Your task to perform on an android device: Open Reddit.com Image 0: 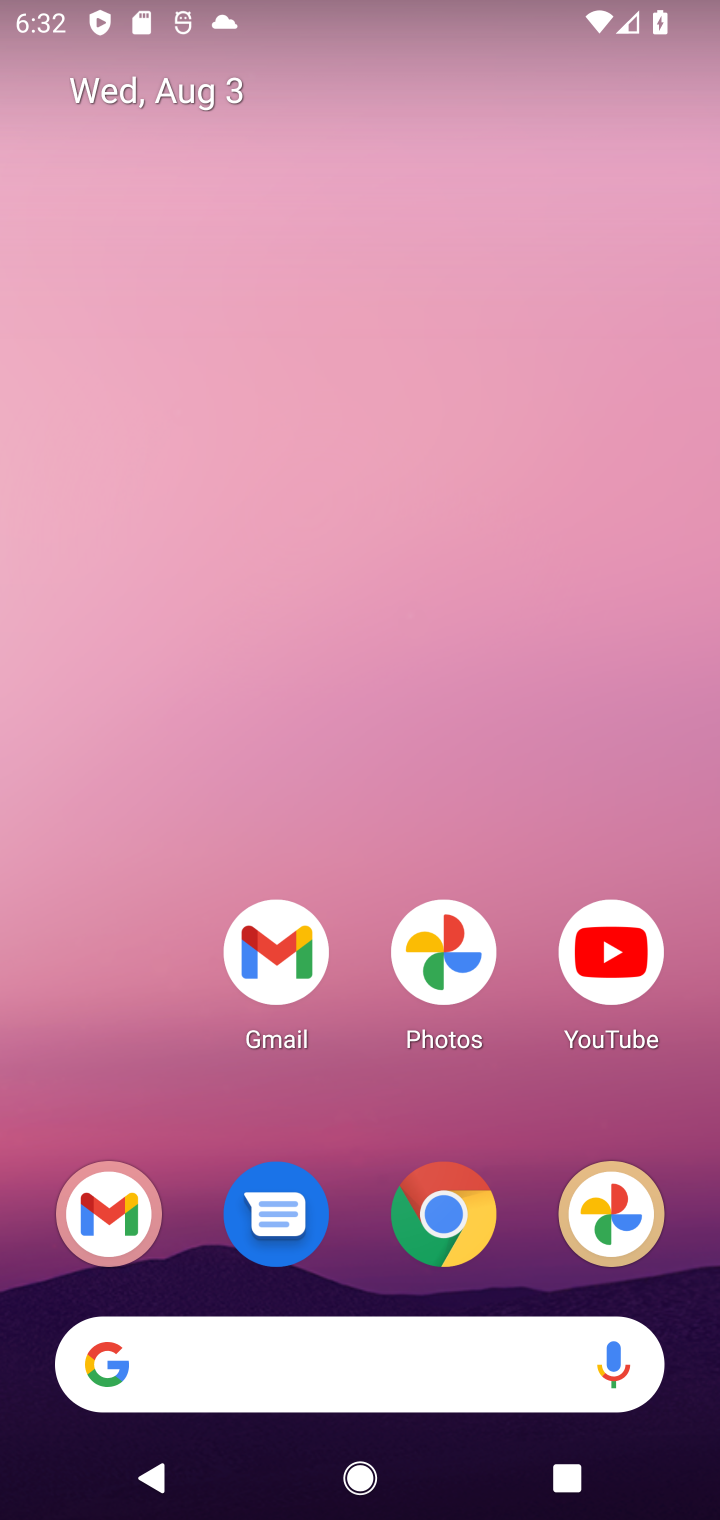
Step 0: drag from (21, 1119) to (23, 28)
Your task to perform on an android device: Open Reddit.com Image 1: 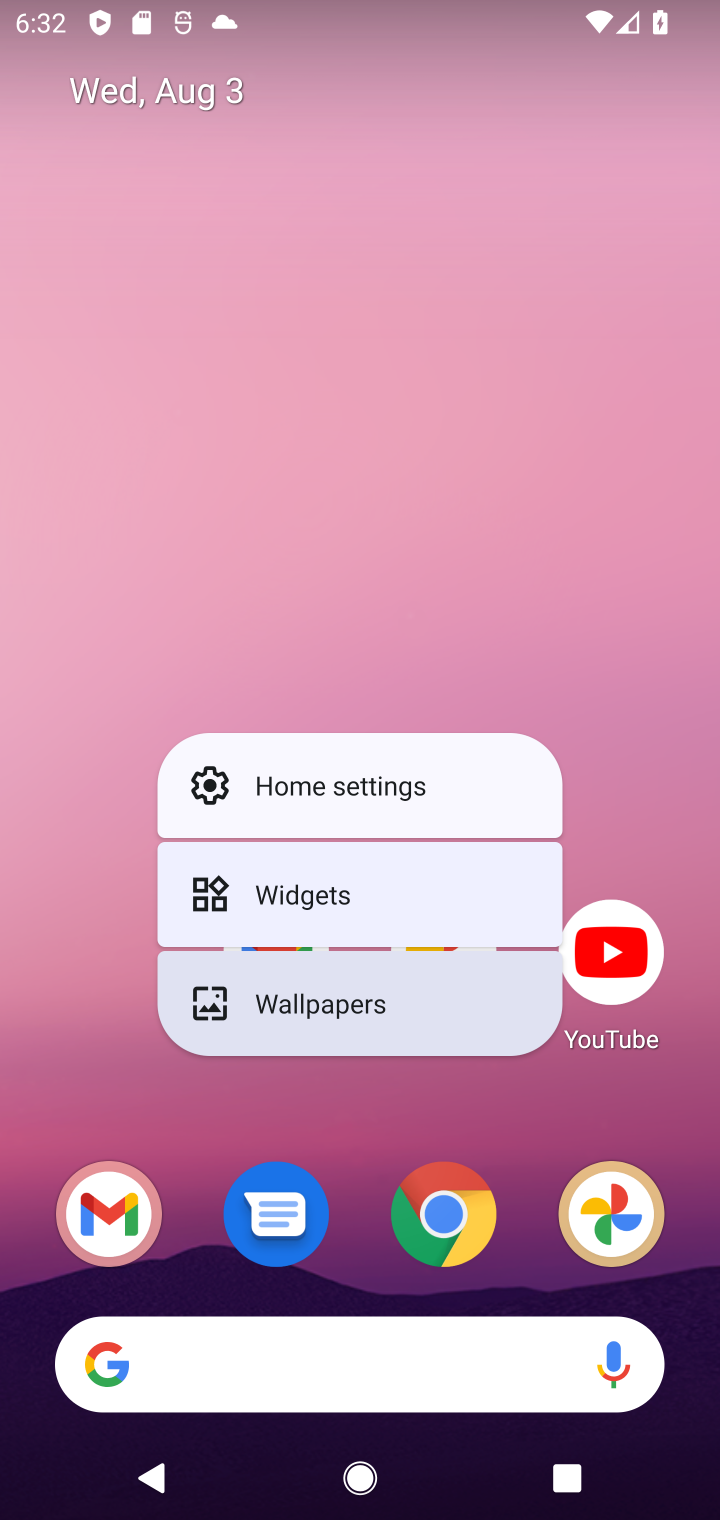
Step 1: drag from (50, 1127) to (138, 147)
Your task to perform on an android device: Open Reddit.com Image 2: 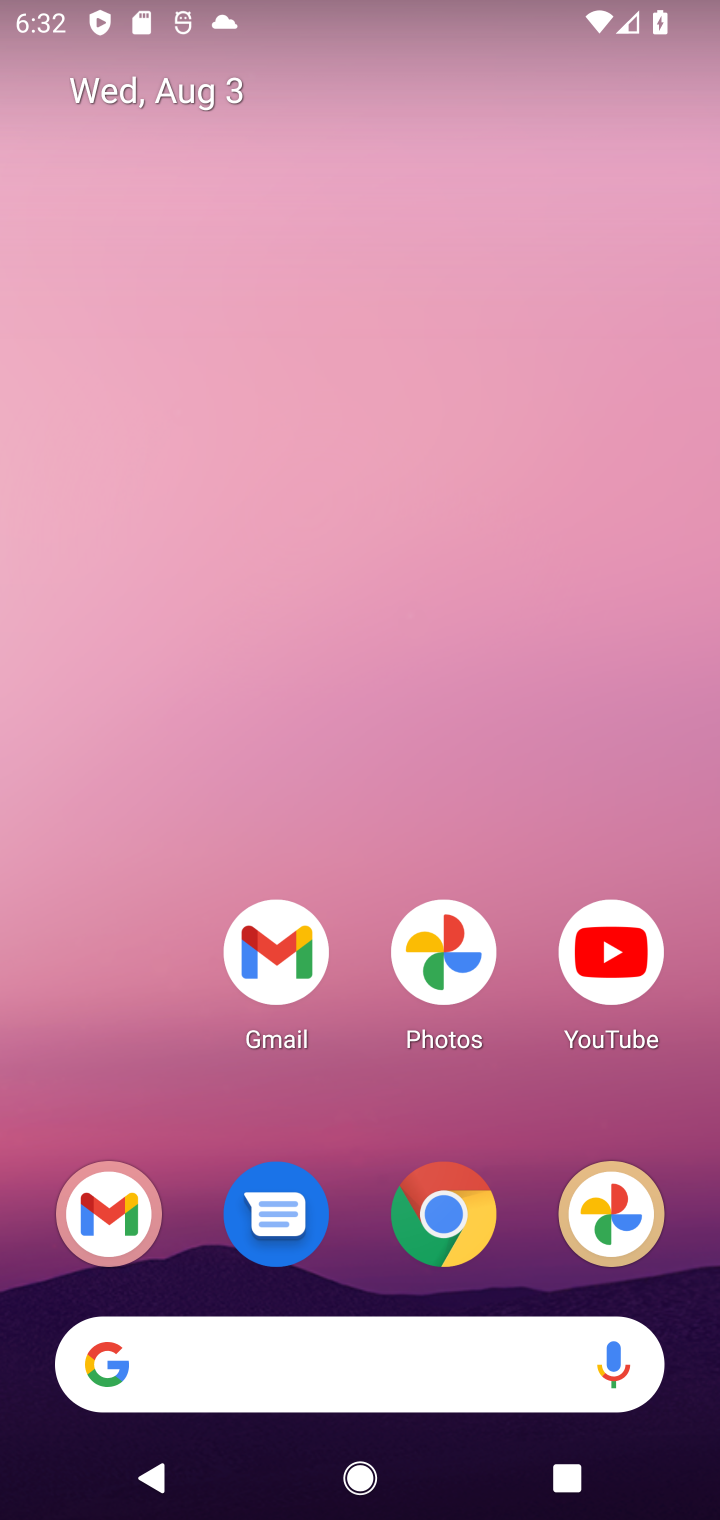
Step 2: drag from (83, 815) to (148, 132)
Your task to perform on an android device: Open Reddit.com Image 3: 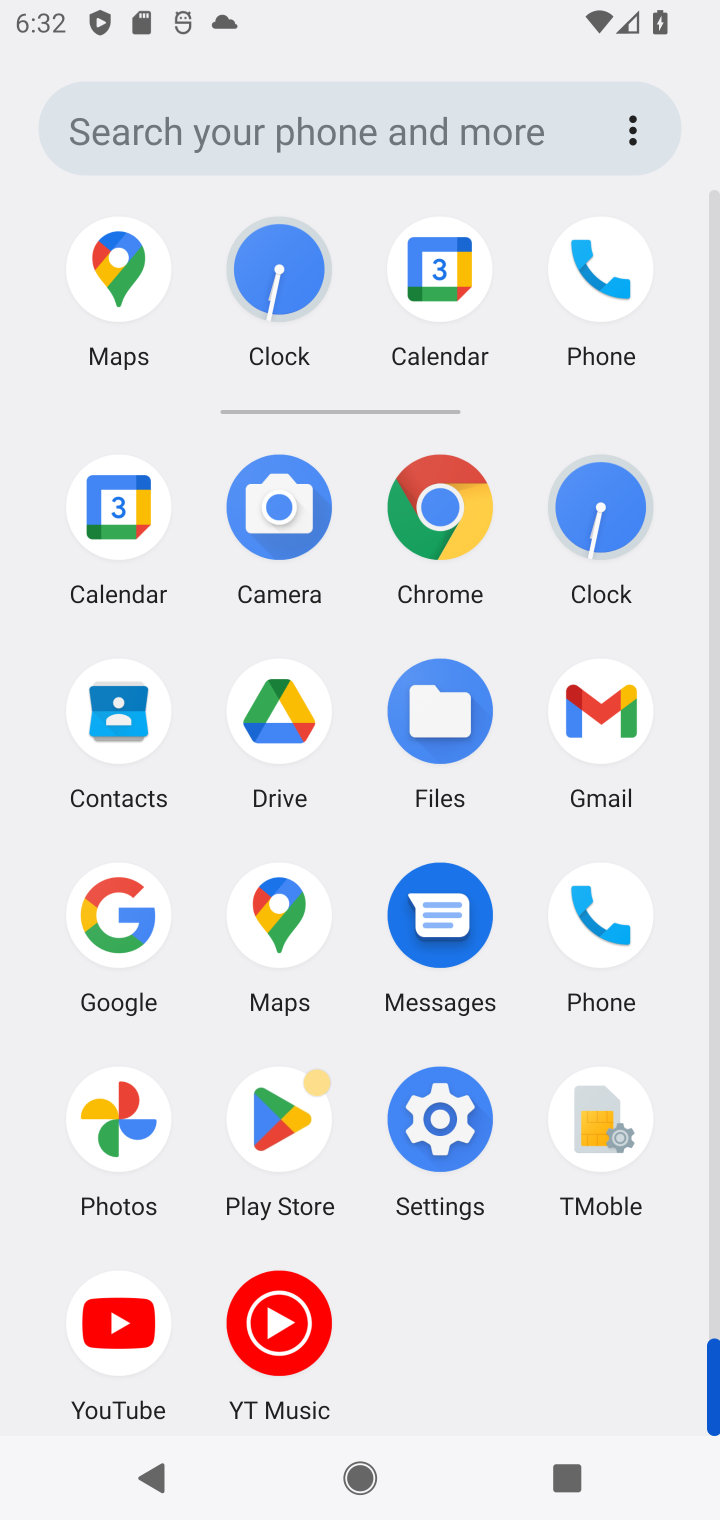
Step 3: click (397, 521)
Your task to perform on an android device: Open Reddit.com Image 4: 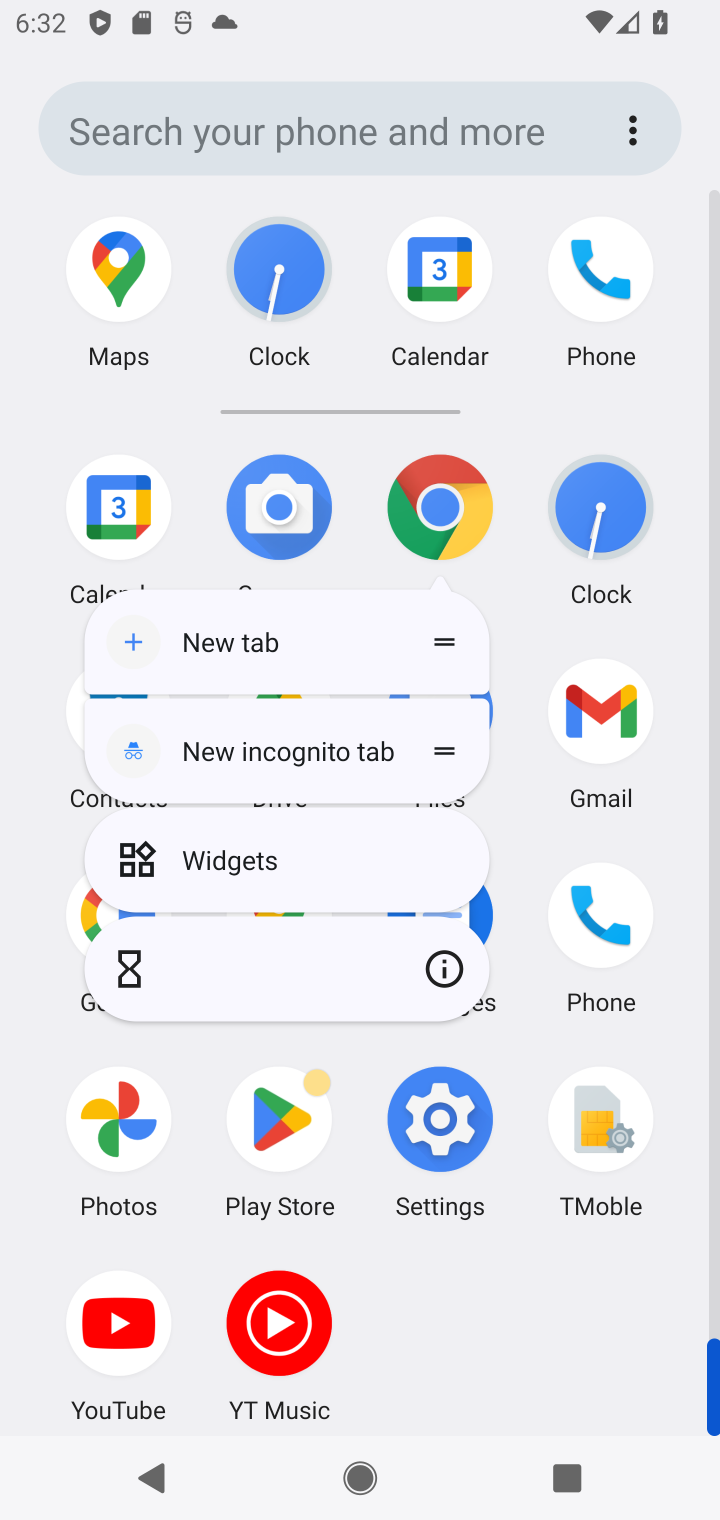
Step 4: click (439, 510)
Your task to perform on an android device: Open Reddit.com Image 5: 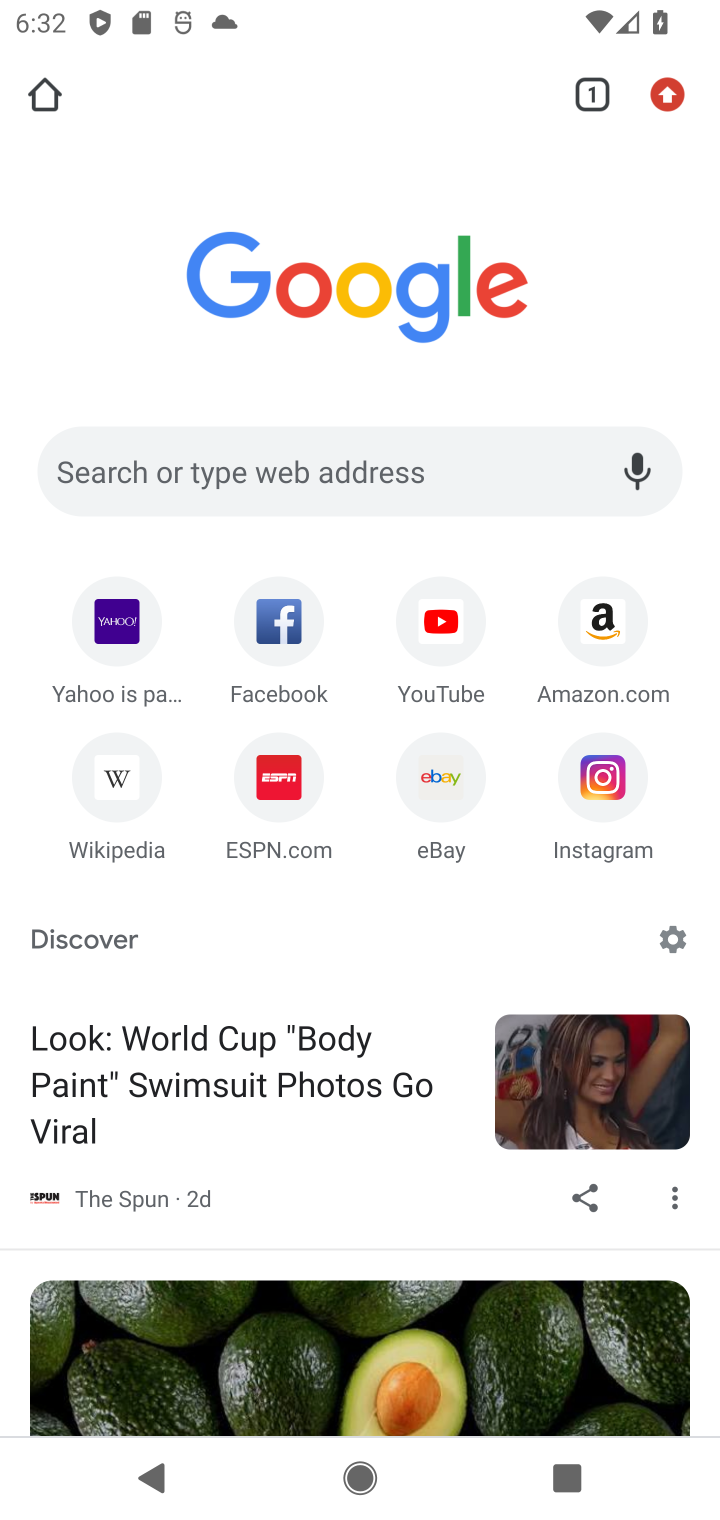
Step 5: click (275, 465)
Your task to perform on an android device: Open Reddit.com Image 6: 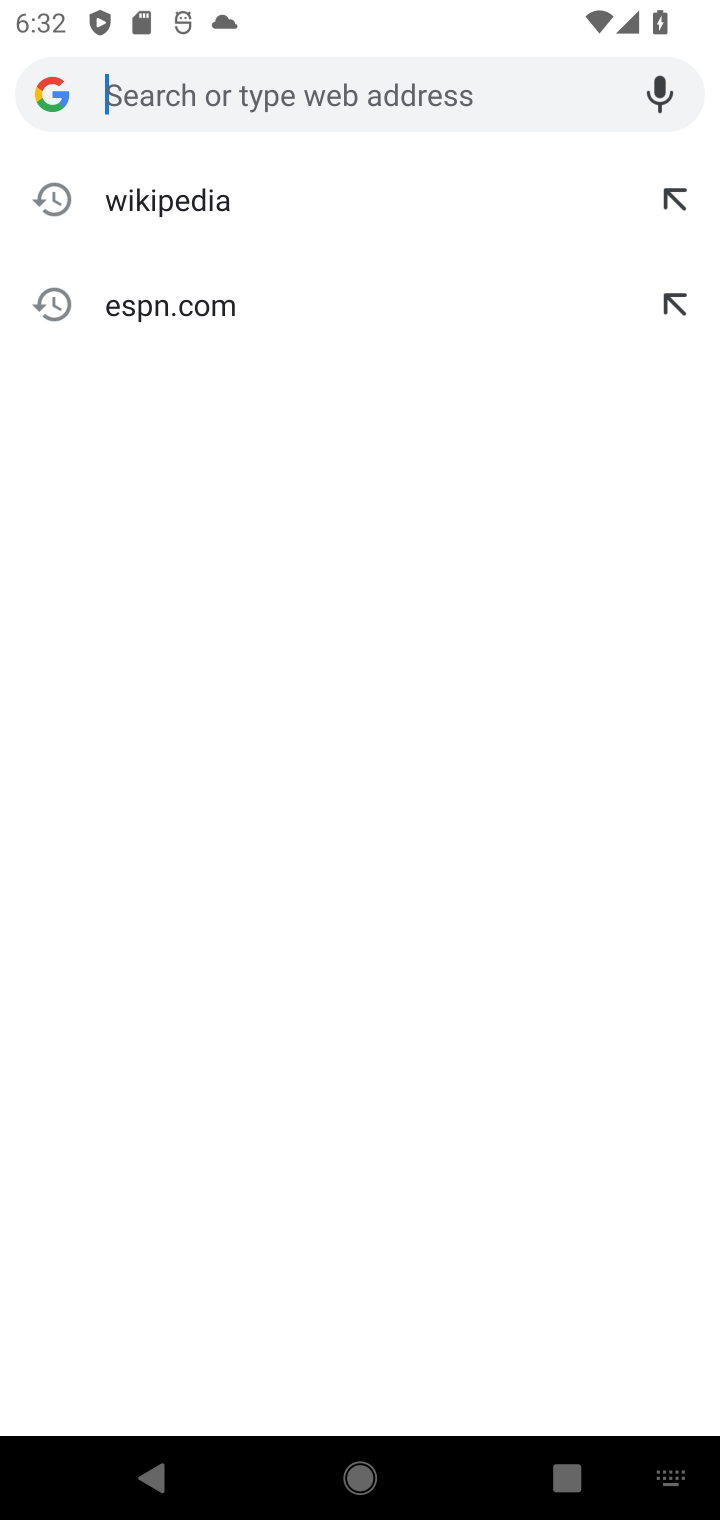
Step 6: type "reddit"
Your task to perform on an android device: Open Reddit.com Image 7: 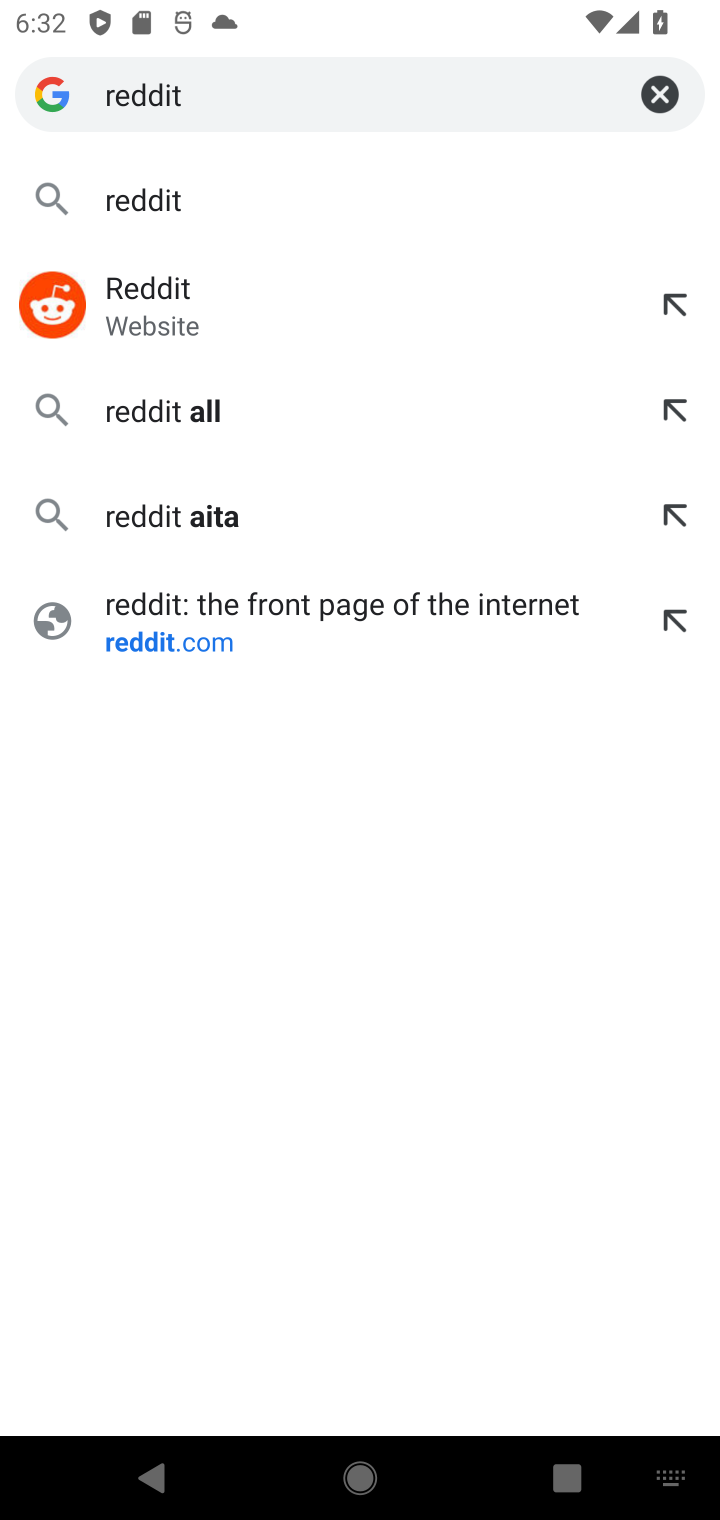
Step 7: click (169, 316)
Your task to perform on an android device: Open Reddit.com Image 8: 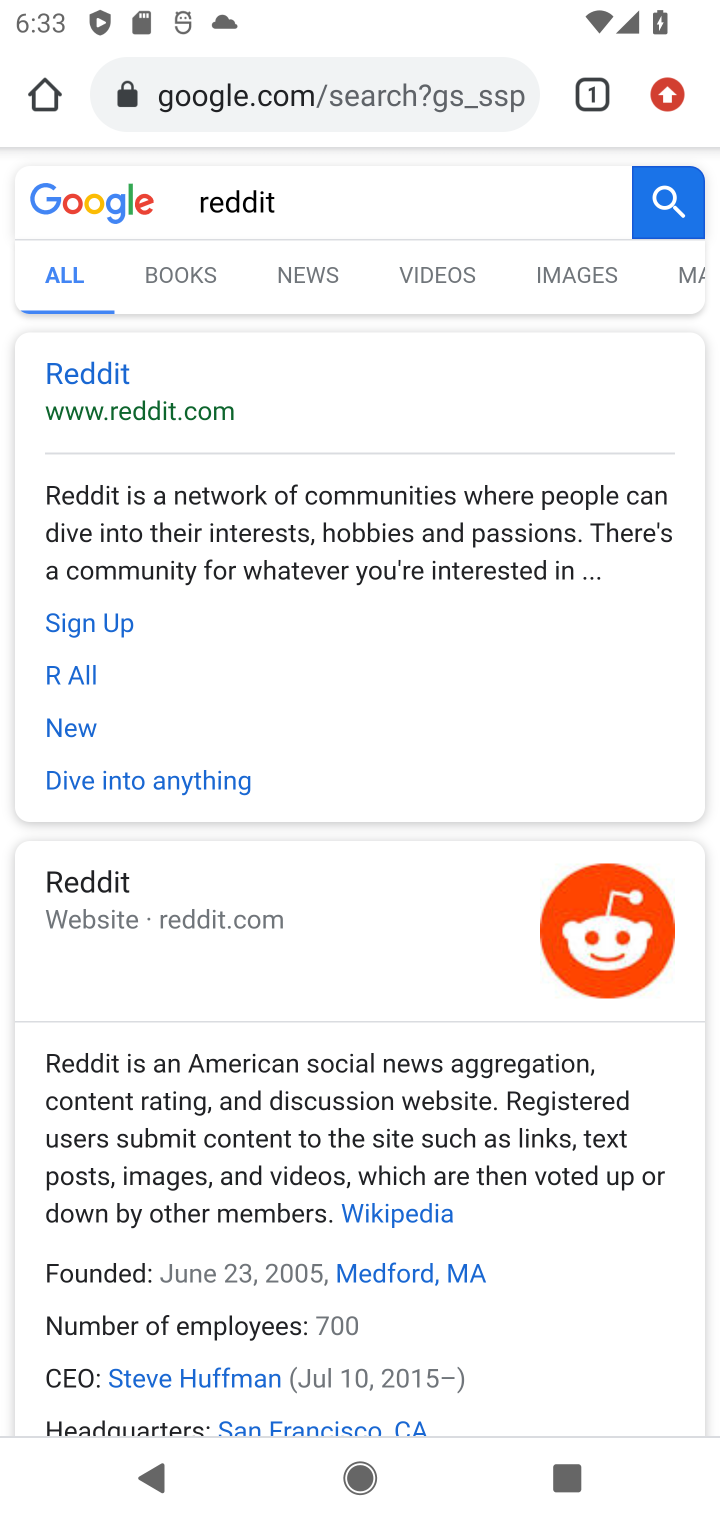
Step 8: click (142, 395)
Your task to perform on an android device: Open Reddit.com Image 9: 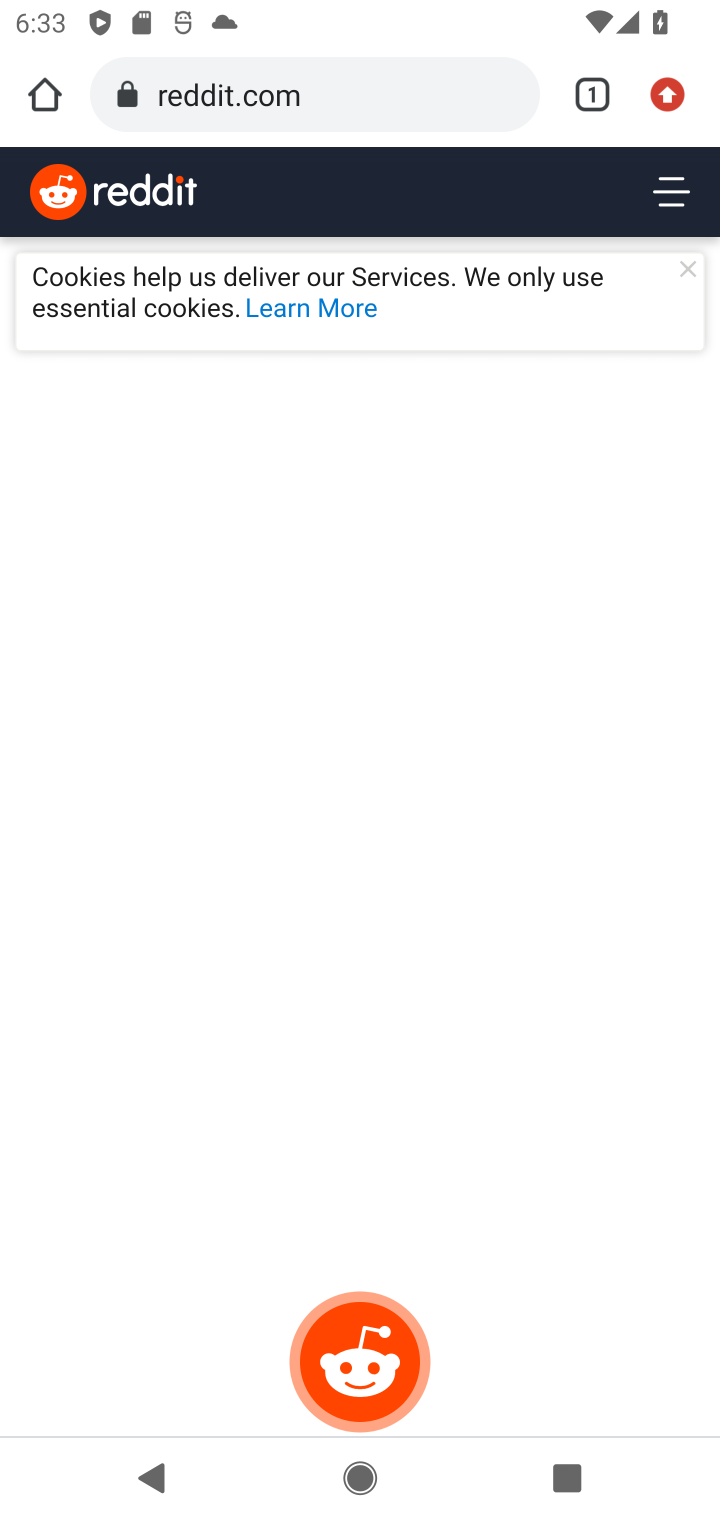
Step 9: task complete